Your task to perform on an android device: Open battery settings Image 0: 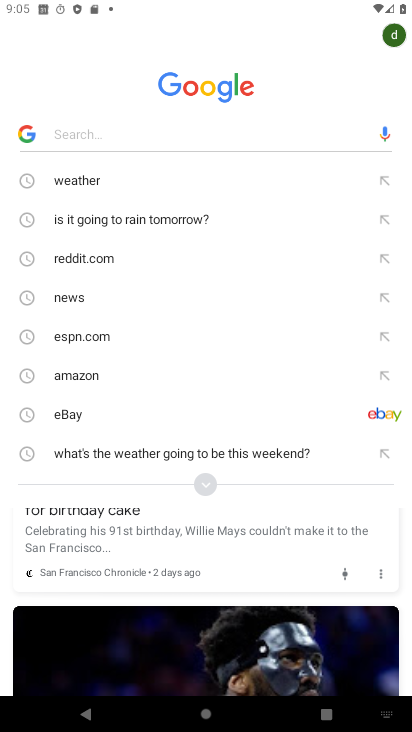
Step 0: press home button
Your task to perform on an android device: Open battery settings Image 1: 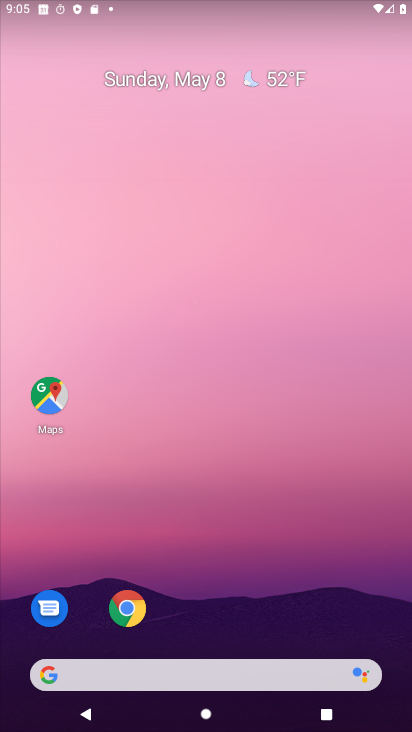
Step 1: drag from (242, 654) to (263, 34)
Your task to perform on an android device: Open battery settings Image 2: 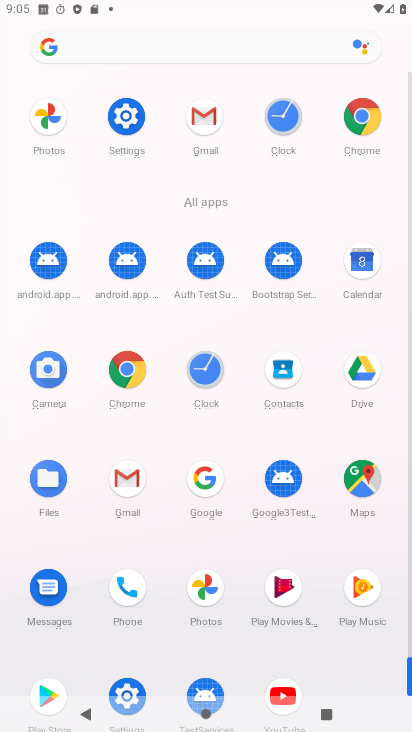
Step 2: drag from (246, 646) to (277, 127)
Your task to perform on an android device: Open battery settings Image 3: 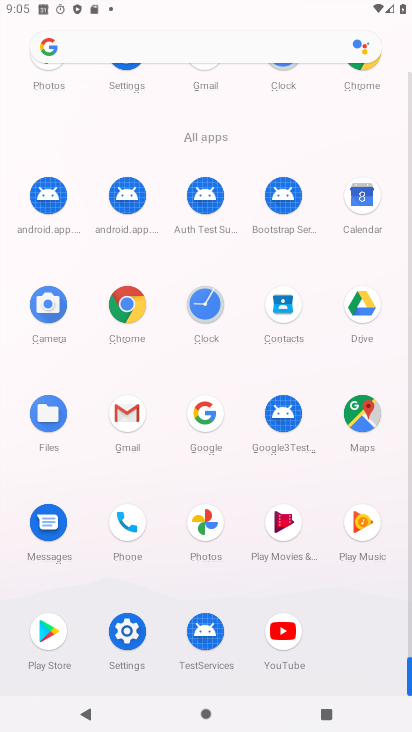
Step 3: click (115, 629)
Your task to perform on an android device: Open battery settings Image 4: 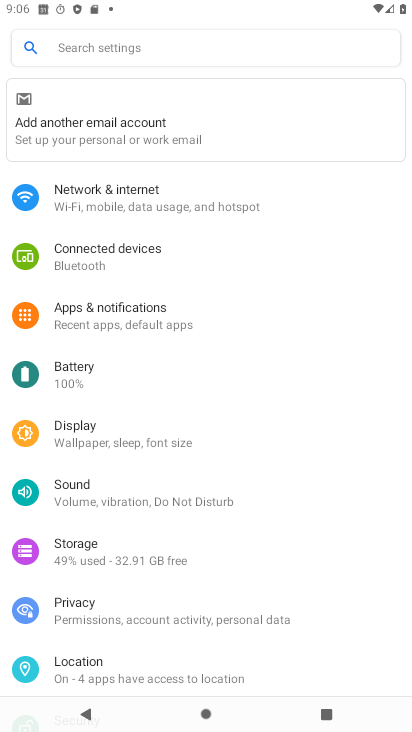
Step 4: click (99, 371)
Your task to perform on an android device: Open battery settings Image 5: 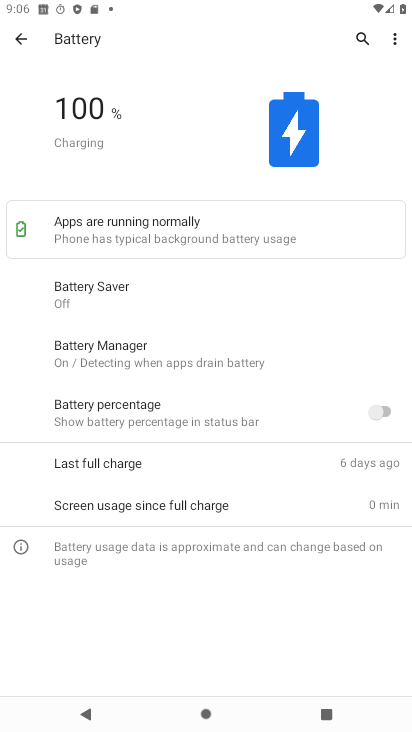
Step 5: task complete